Your task to perform on an android device: open app "LiveIn - Share Your Moment" (install if not already installed) and go to login screen Image 0: 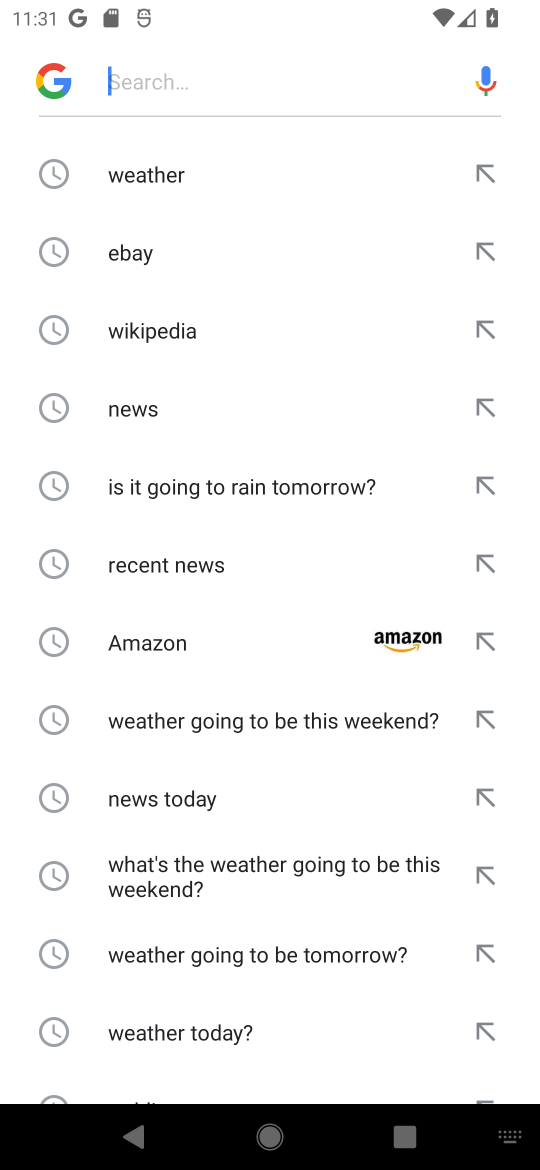
Step 0: press back button
Your task to perform on an android device: open app "LiveIn - Share Your Moment" (install if not already installed) and go to login screen Image 1: 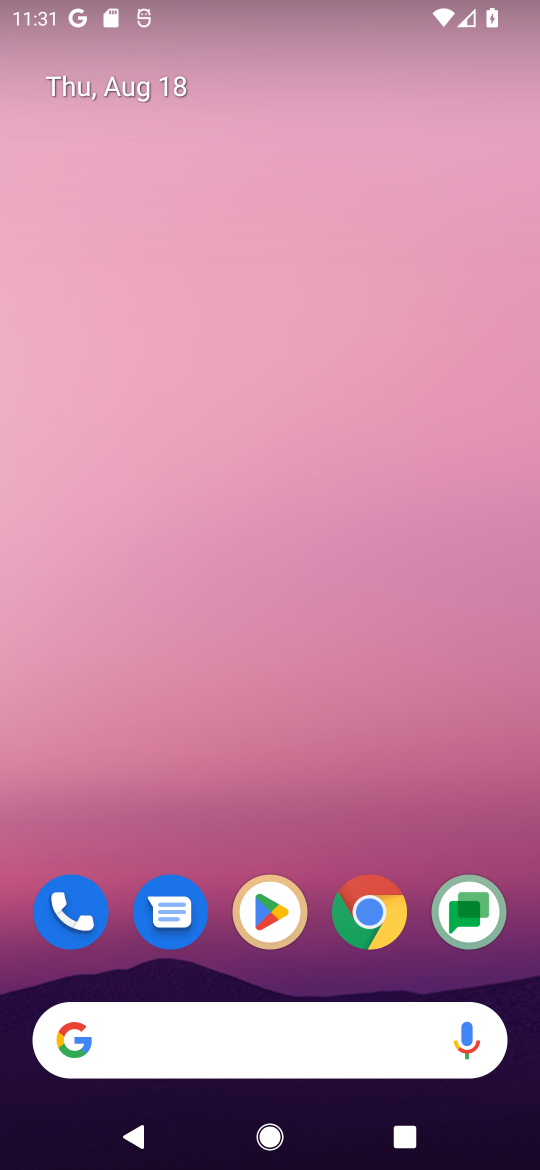
Step 1: click (258, 902)
Your task to perform on an android device: open app "LiveIn - Share Your Moment" (install if not already installed) and go to login screen Image 2: 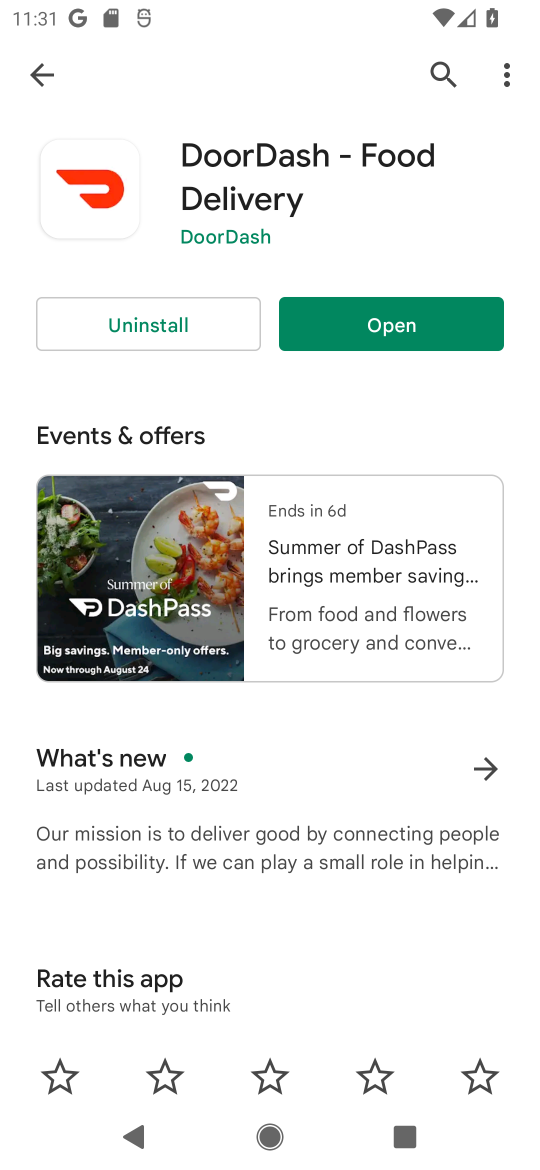
Step 2: click (440, 64)
Your task to perform on an android device: open app "LiveIn - Share Your Moment" (install if not already installed) and go to login screen Image 3: 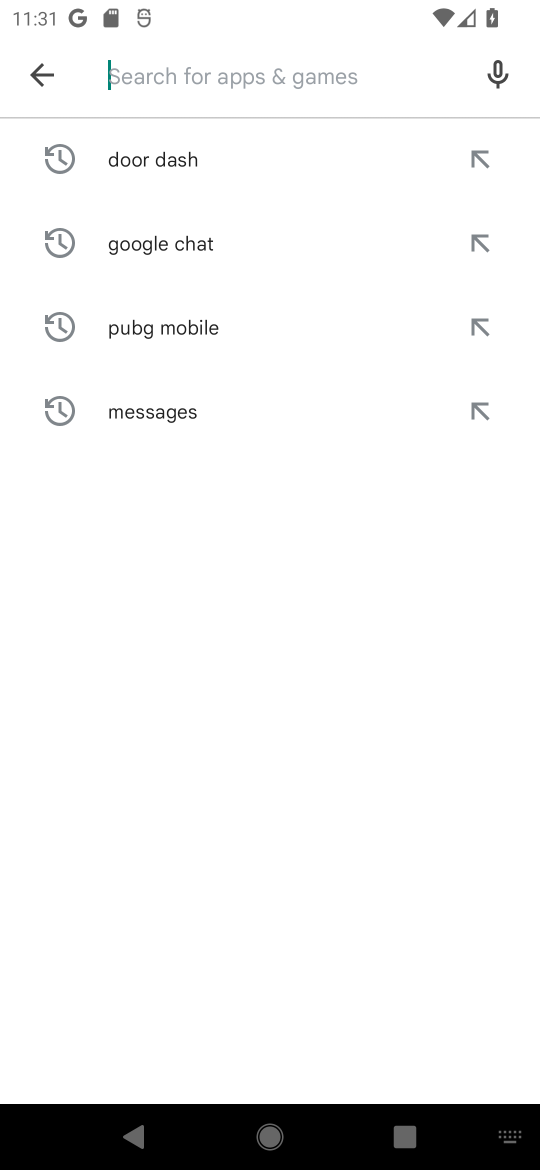
Step 3: click (321, 79)
Your task to perform on an android device: open app "LiveIn - Share Your Moment" (install if not already installed) and go to login screen Image 4: 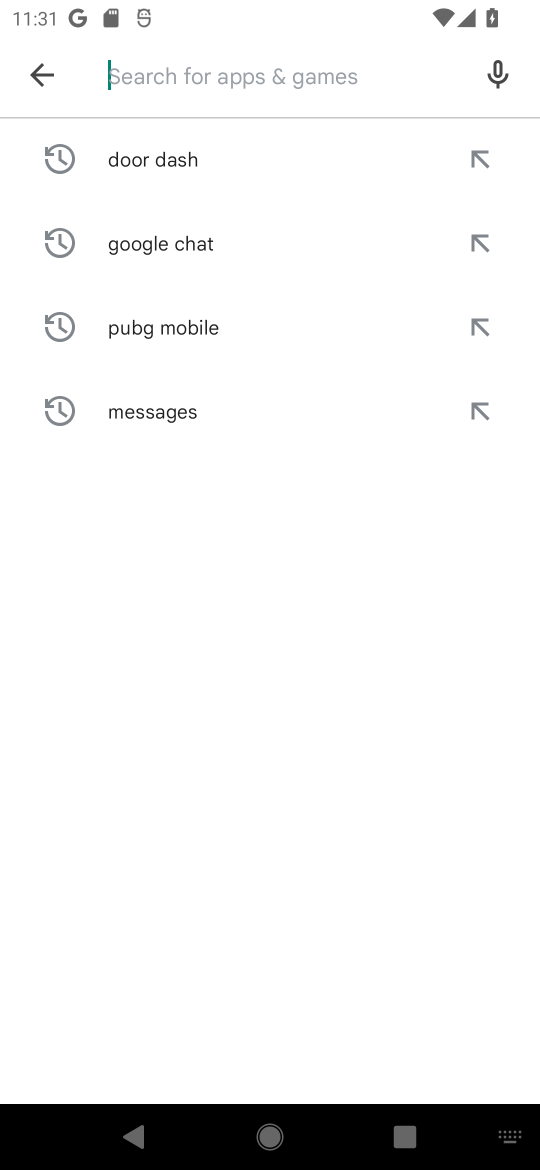
Step 4: click (214, 60)
Your task to perform on an android device: open app "LiveIn - Share Your Moment" (install if not already installed) and go to login screen Image 5: 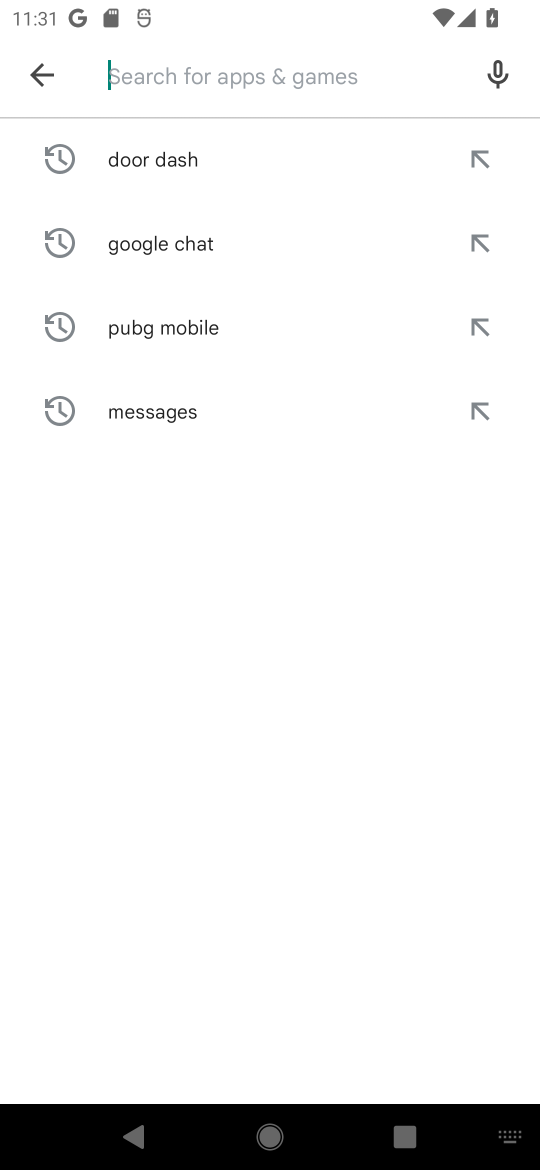
Step 5: type "LiveIn"
Your task to perform on an android device: open app "LiveIn - Share Your Moment" (install if not already installed) and go to login screen Image 6: 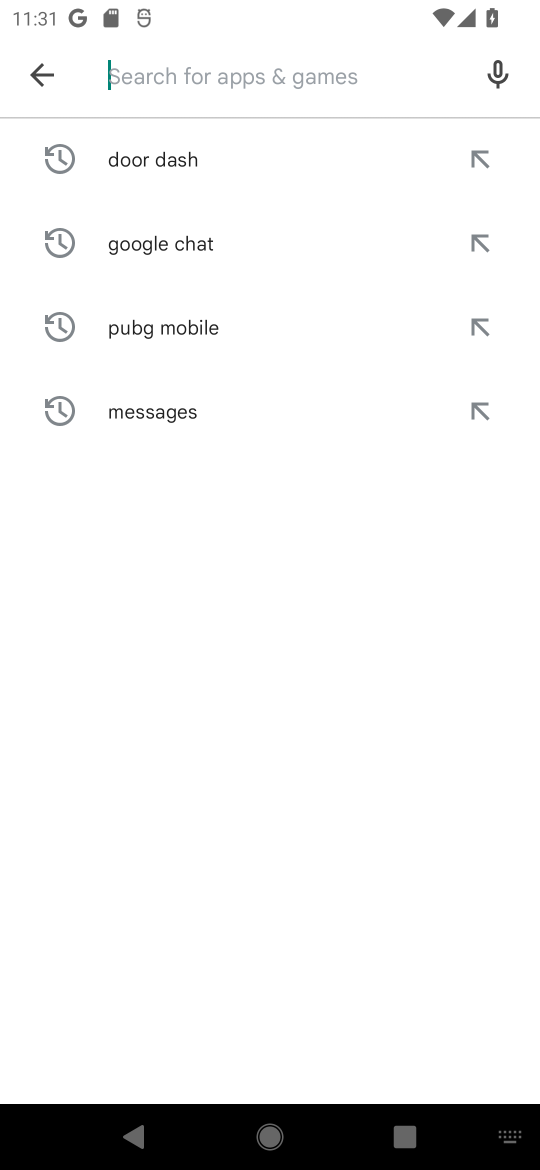
Step 6: click (303, 753)
Your task to perform on an android device: open app "LiveIn - Share Your Moment" (install if not already installed) and go to login screen Image 7: 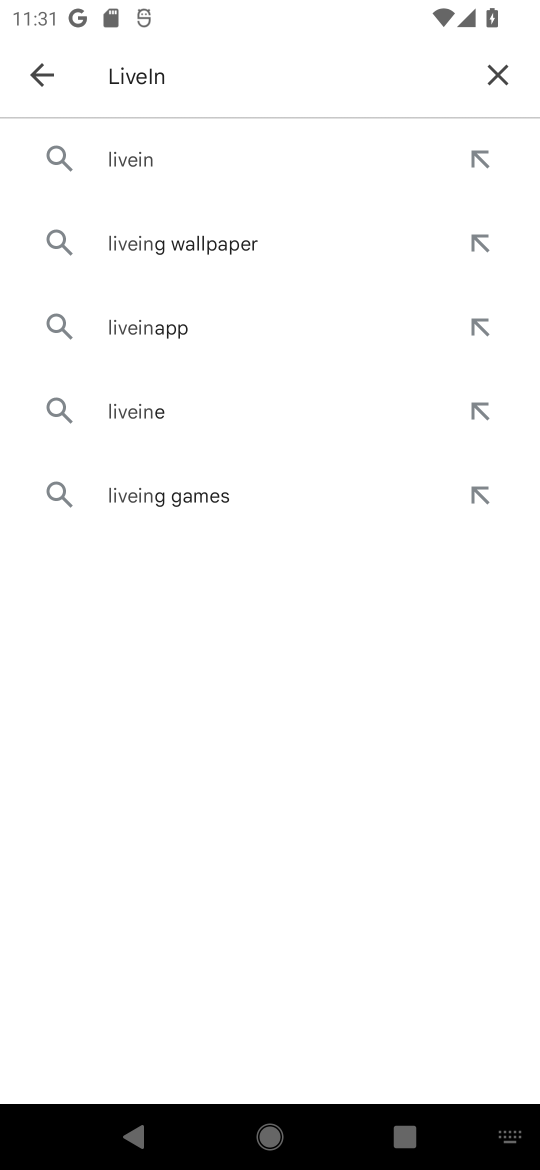
Step 7: click (185, 151)
Your task to perform on an android device: open app "LiveIn - Share Your Moment" (install if not already installed) and go to login screen Image 8: 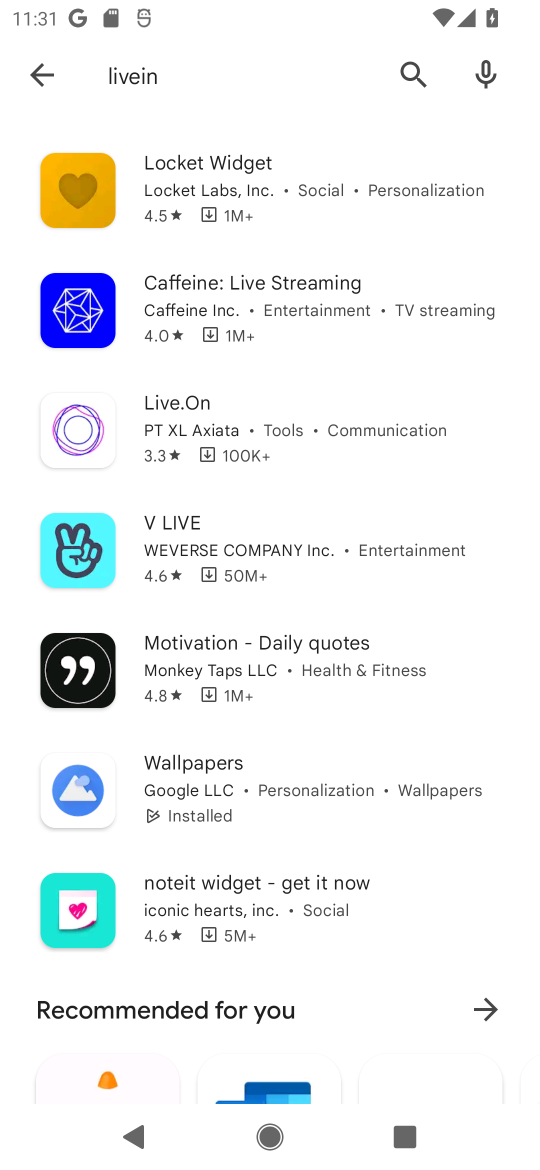
Step 8: task complete